Your task to perform on an android device: toggle javascript in the chrome app Image 0: 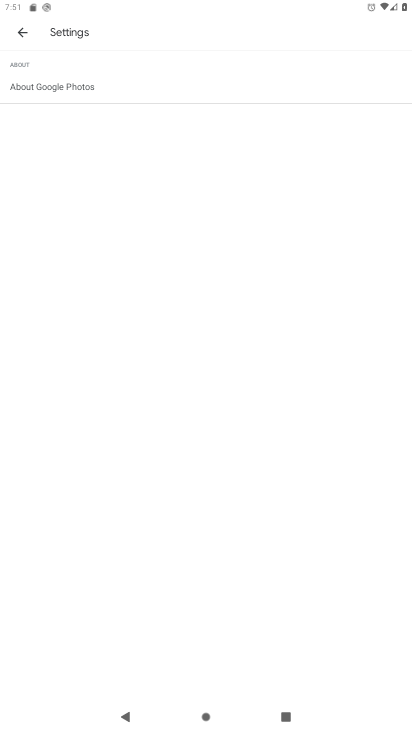
Step 0: press home button
Your task to perform on an android device: toggle javascript in the chrome app Image 1: 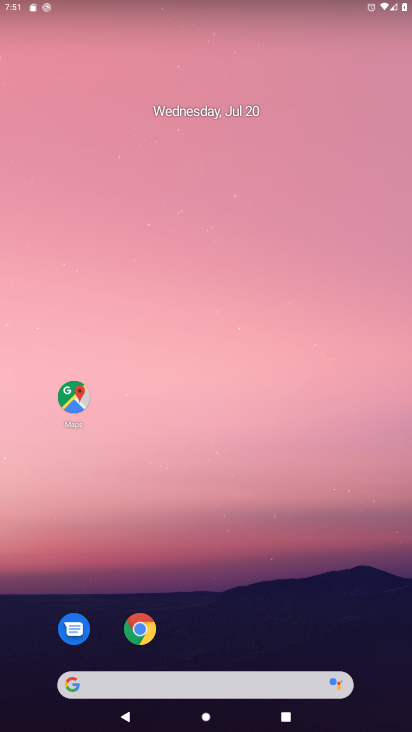
Step 1: click (139, 638)
Your task to perform on an android device: toggle javascript in the chrome app Image 2: 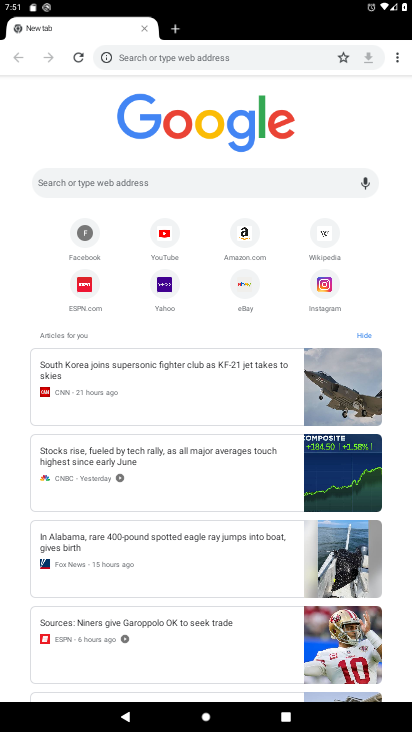
Step 2: click (399, 60)
Your task to perform on an android device: toggle javascript in the chrome app Image 3: 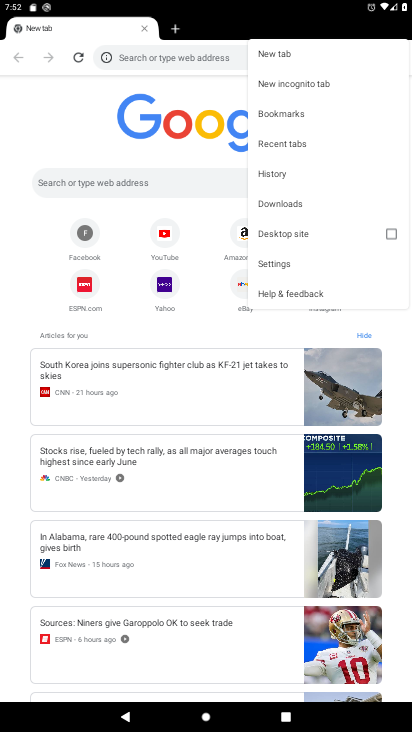
Step 3: click (290, 262)
Your task to perform on an android device: toggle javascript in the chrome app Image 4: 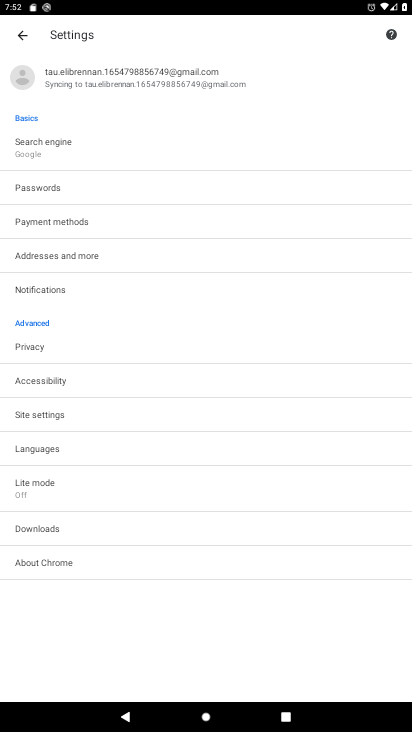
Step 4: click (60, 418)
Your task to perform on an android device: toggle javascript in the chrome app Image 5: 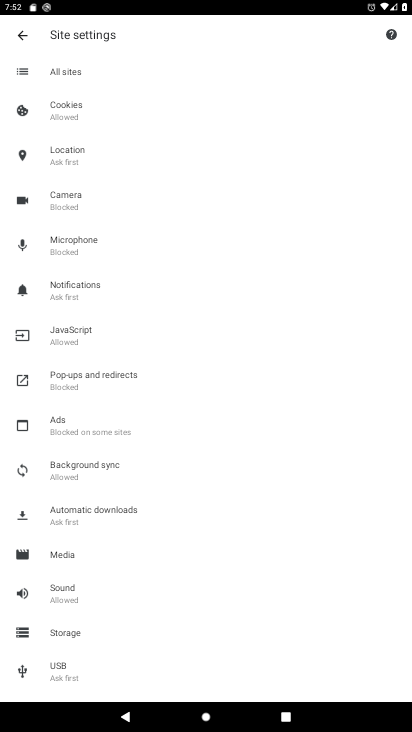
Step 5: click (99, 334)
Your task to perform on an android device: toggle javascript in the chrome app Image 6: 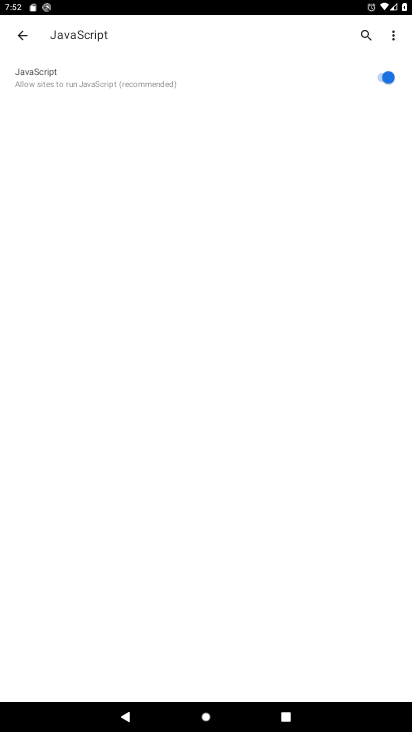
Step 6: click (382, 76)
Your task to perform on an android device: toggle javascript in the chrome app Image 7: 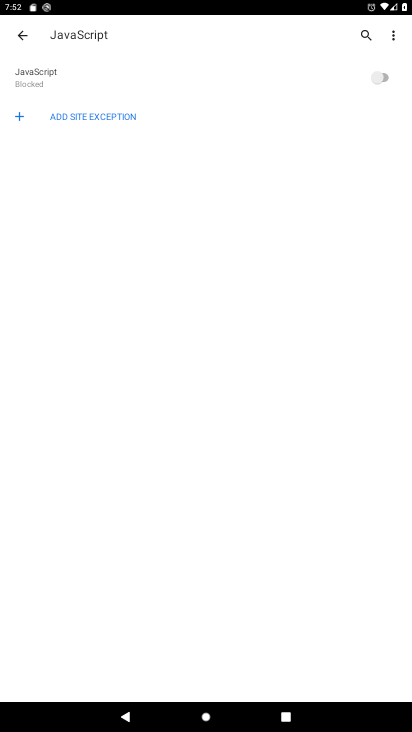
Step 7: task complete